Your task to perform on an android device: Go to Wikipedia Image 0: 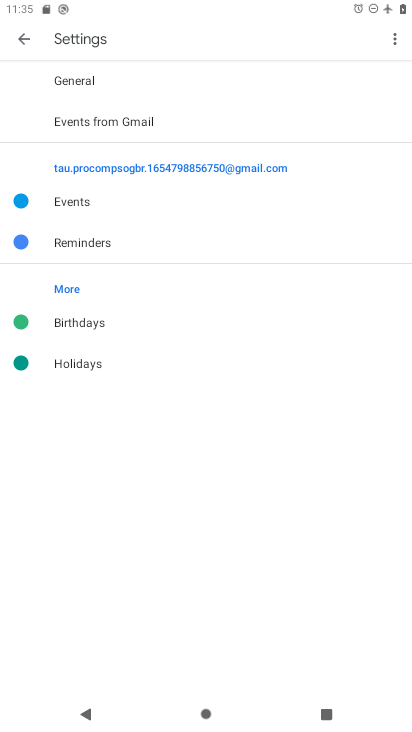
Step 0: press home button
Your task to perform on an android device: Go to Wikipedia Image 1: 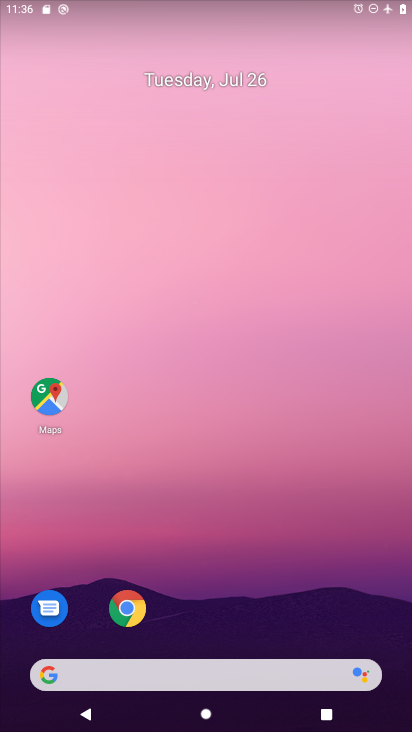
Step 1: drag from (256, 618) to (286, 72)
Your task to perform on an android device: Go to Wikipedia Image 2: 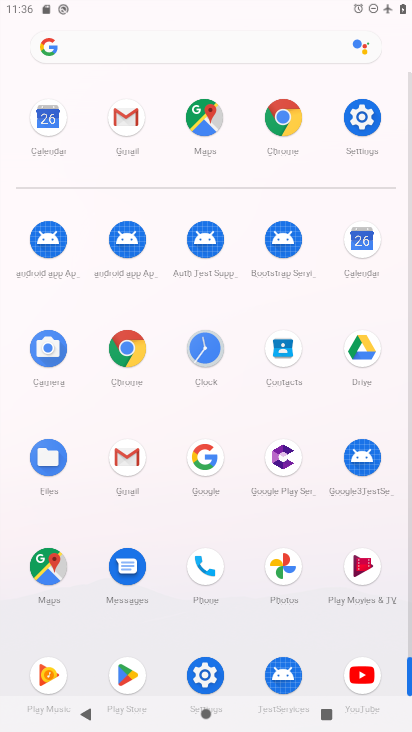
Step 2: click (292, 114)
Your task to perform on an android device: Go to Wikipedia Image 3: 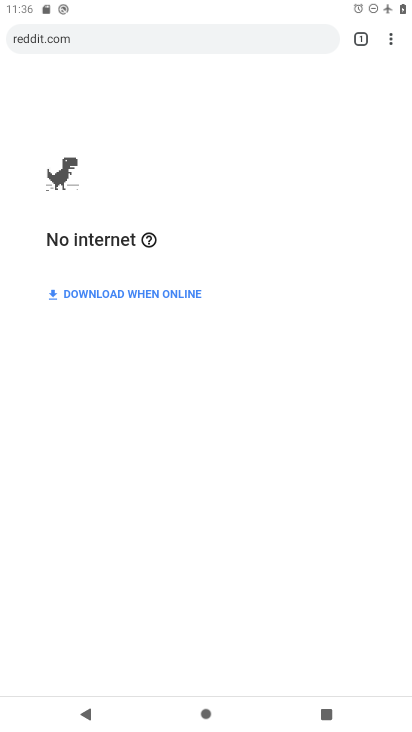
Step 3: click (301, 38)
Your task to perform on an android device: Go to Wikipedia Image 4: 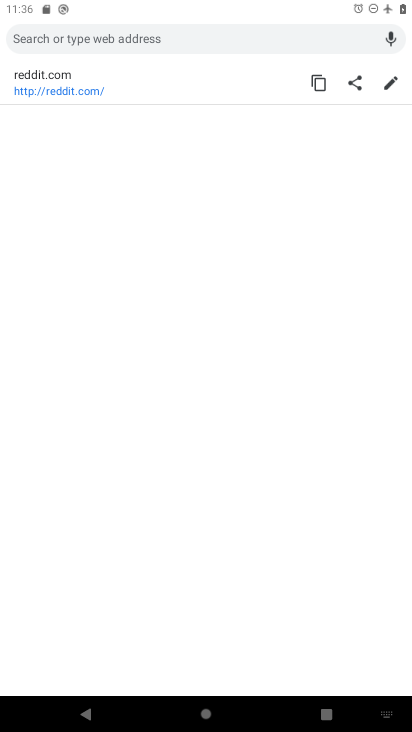
Step 4: type "wikipedia"
Your task to perform on an android device: Go to Wikipedia Image 5: 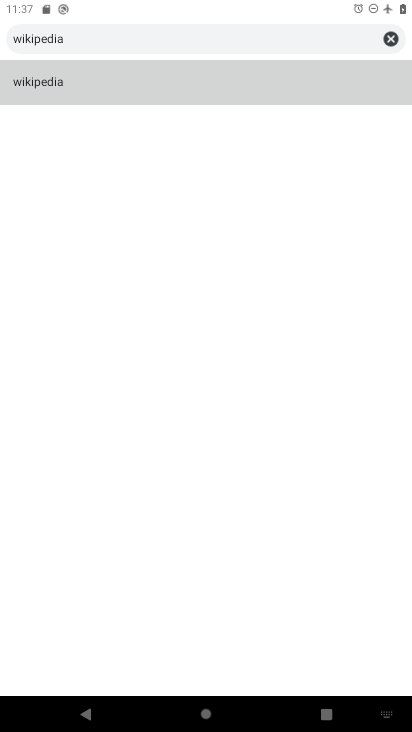
Step 5: click (45, 85)
Your task to perform on an android device: Go to Wikipedia Image 6: 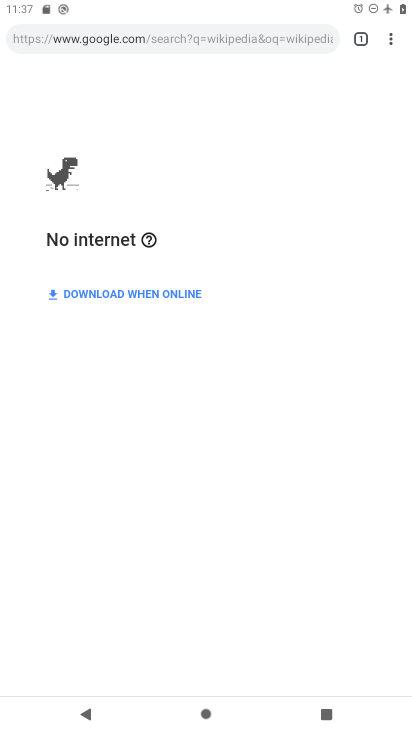
Step 6: task complete